Your task to perform on an android device: change the clock style Image 0: 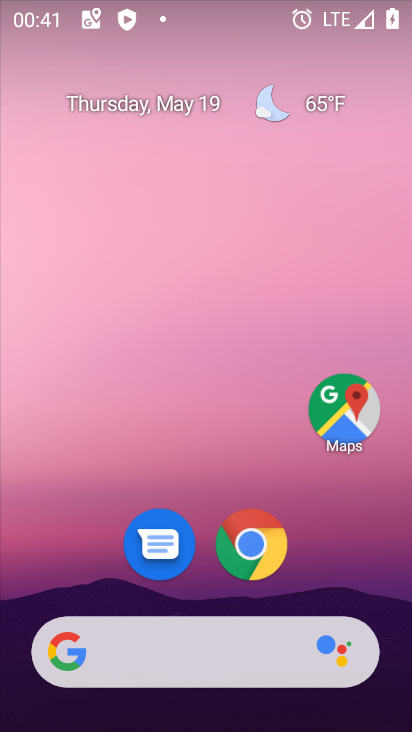
Step 0: drag from (384, 575) to (385, 177)
Your task to perform on an android device: change the clock style Image 1: 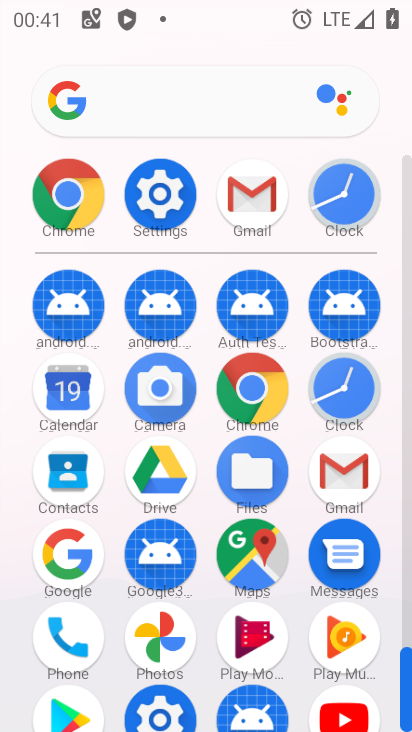
Step 1: click (361, 384)
Your task to perform on an android device: change the clock style Image 2: 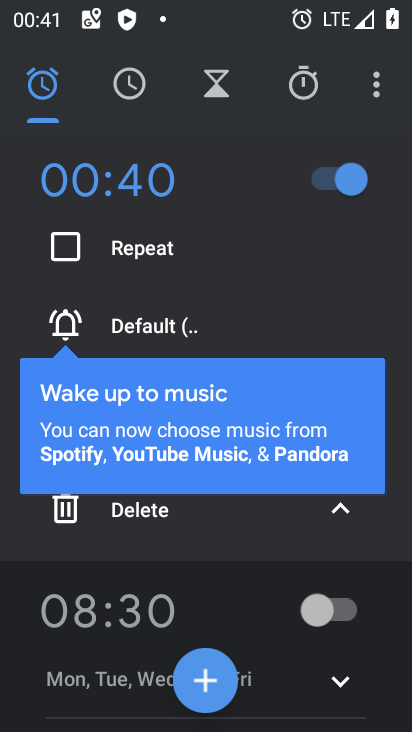
Step 2: click (377, 97)
Your task to perform on an android device: change the clock style Image 3: 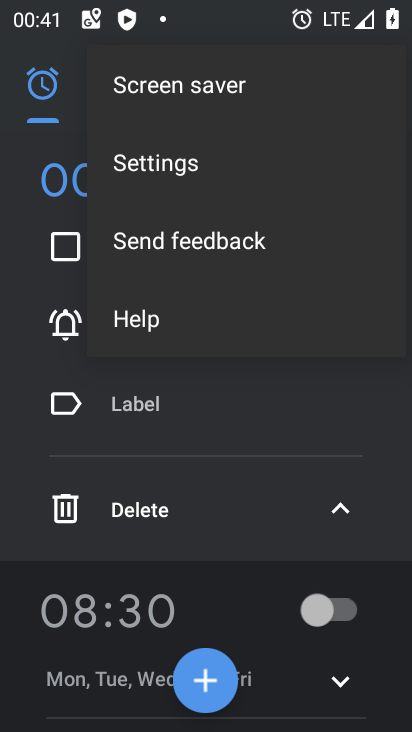
Step 3: click (229, 180)
Your task to perform on an android device: change the clock style Image 4: 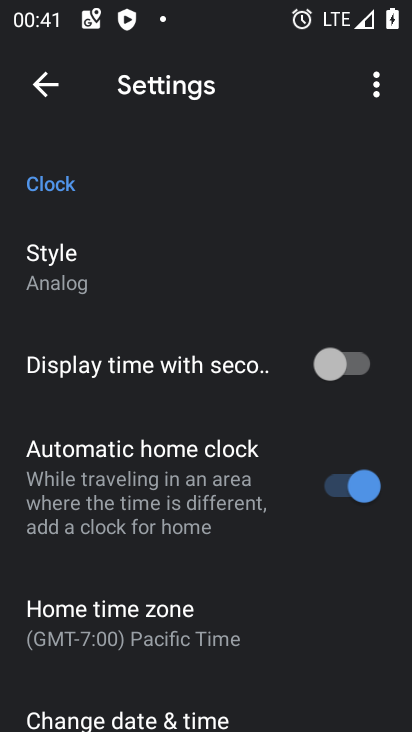
Step 4: drag from (294, 579) to (287, 479)
Your task to perform on an android device: change the clock style Image 5: 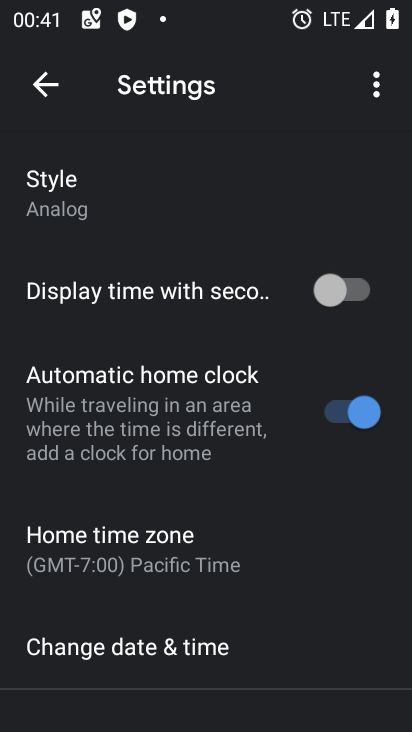
Step 5: drag from (286, 613) to (284, 513)
Your task to perform on an android device: change the clock style Image 6: 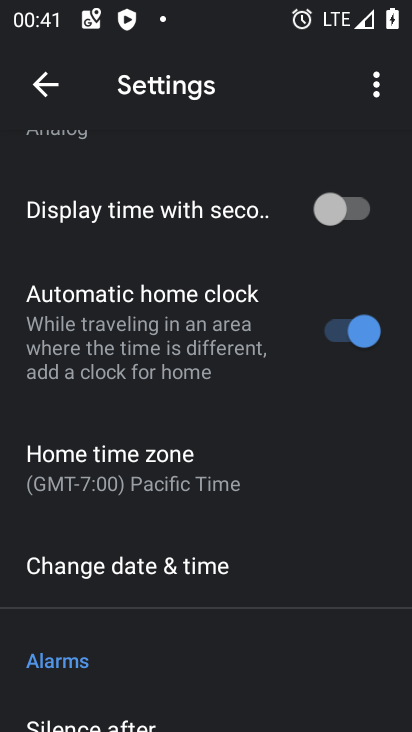
Step 6: drag from (283, 610) to (291, 440)
Your task to perform on an android device: change the clock style Image 7: 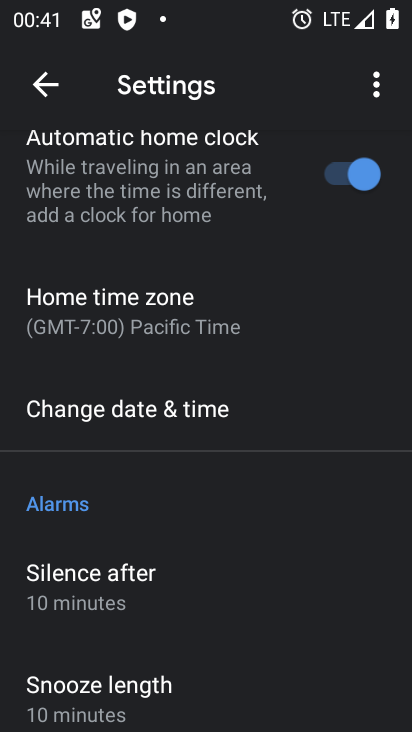
Step 7: drag from (292, 620) to (293, 472)
Your task to perform on an android device: change the clock style Image 8: 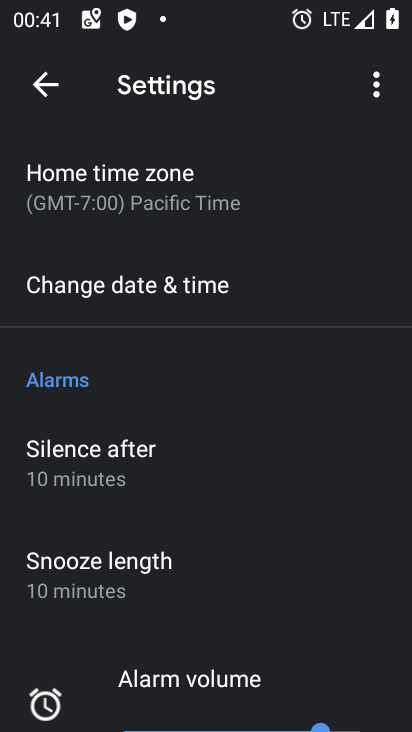
Step 8: drag from (295, 662) to (297, 518)
Your task to perform on an android device: change the clock style Image 9: 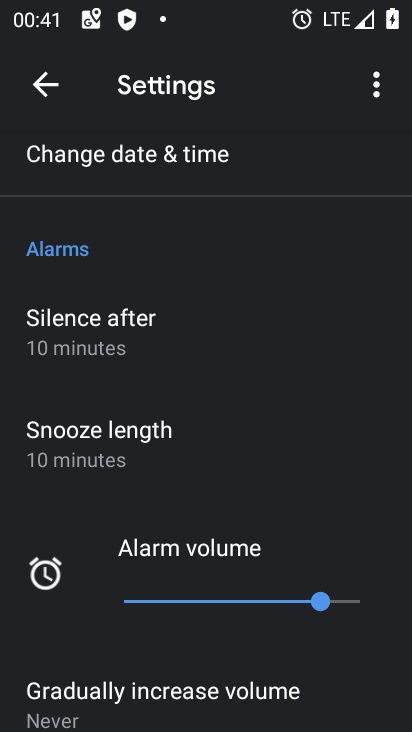
Step 9: drag from (291, 678) to (298, 537)
Your task to perform on an android device: change the clock style Image 10: 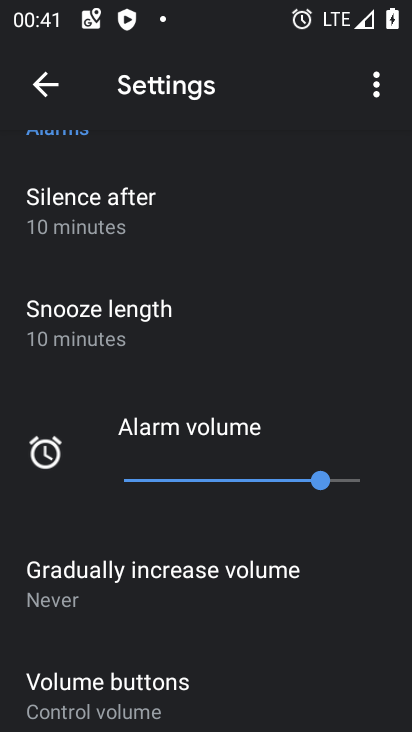
Step 10: drag from (283, 662) to (302, 537)
Your task to perform on an android device: change the clock style Image 11: 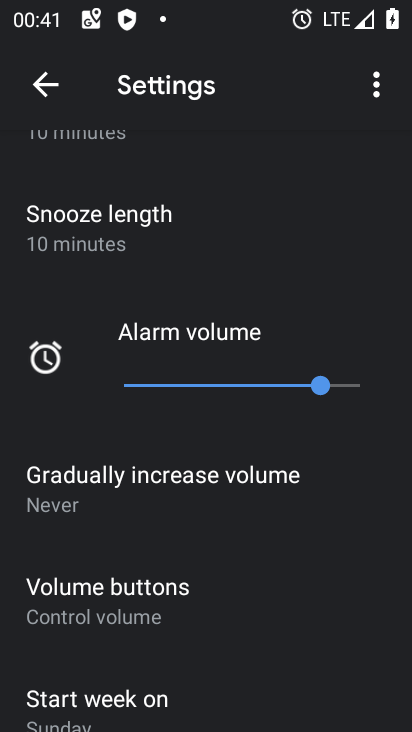
Step 11: drag from (301, 659) to (305, 487)
Your task to perform on an android device: change the clock style Image 12: 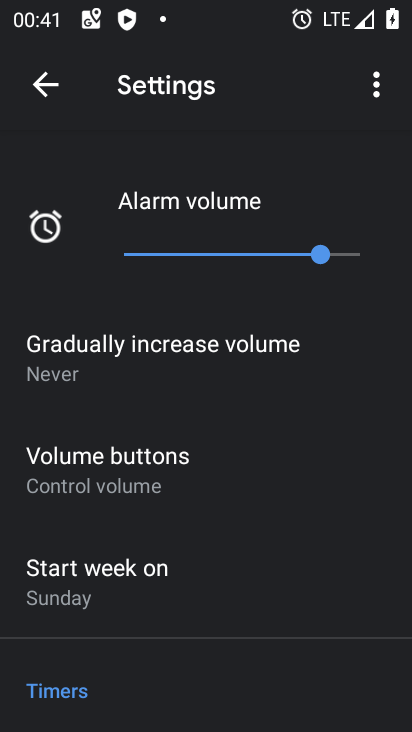
Step 12: drag from (281, 674) to (298, 515)
Your task to perform on an android device: change the clock style Image 13: 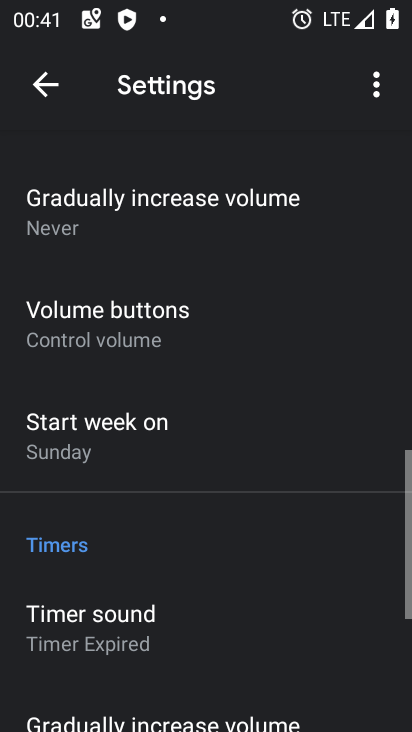
Step 13: drag from (281, 664) to (286, 491)
Your task to perform on an android device: change the clock style Image 14: 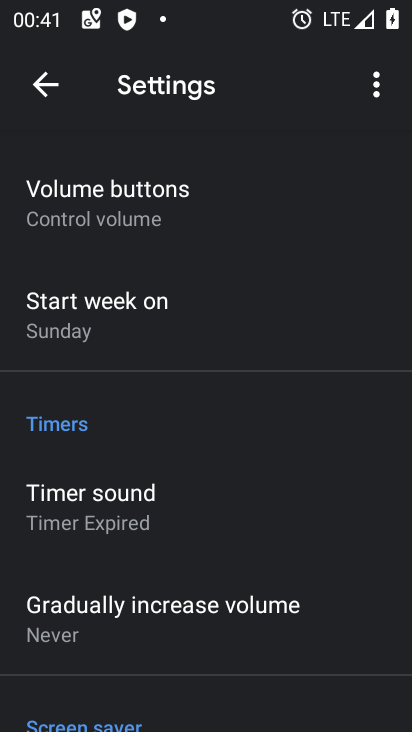
Step 14: drag from (326, 358) to (300, 567)
Your task to perform on an android device: change the clock style Image 15: 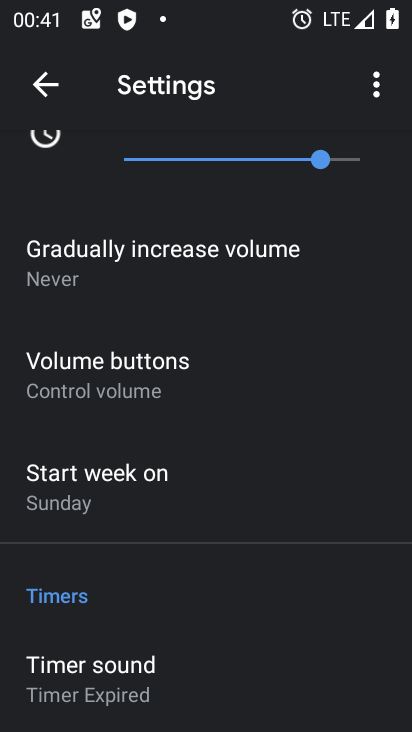
Step 15: drag from (306, 250) to (308, 434)
Your task to perform on an android device: change the clock style Image 16: 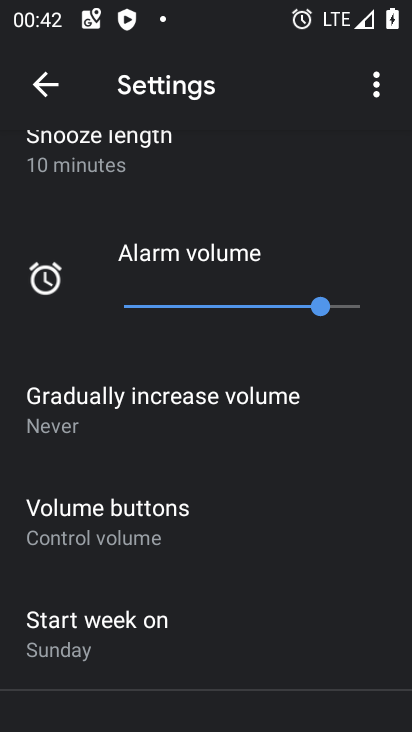
Step 16: drag from (275, 182) to (251, 399)
Your task to perform on an android device: change the clock style Image 17: 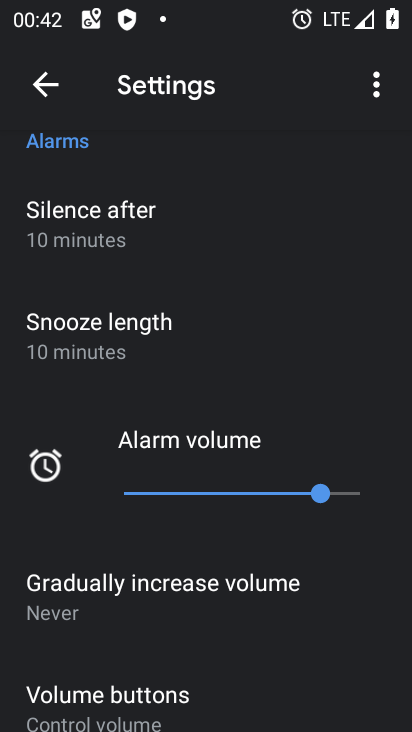
Step 17: drag from (248, 237) to (248, 374)
Your task to perform on an android device: change the clock style Image 18: 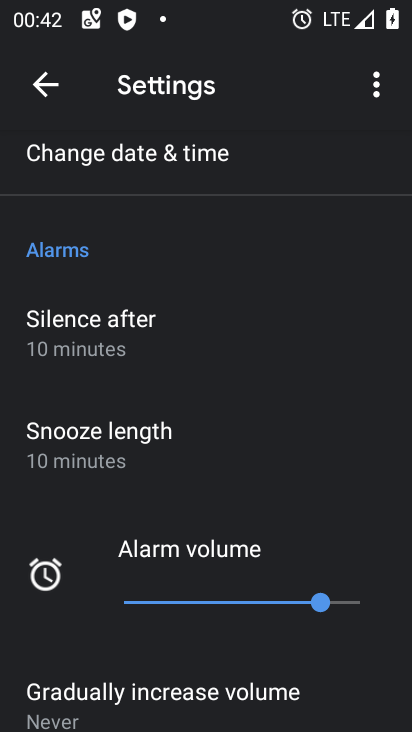
Step 18: drag from (269, 231) to (269, 449)
Your task to perform on an android device: change the clock style Image 19: 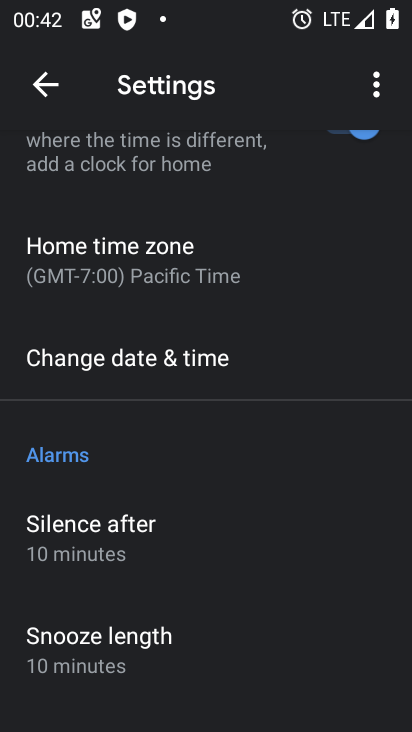
Step 19: drag from (279, 206) to (272, 397)
Your task to perform on an android device: change the clock style Image 20: 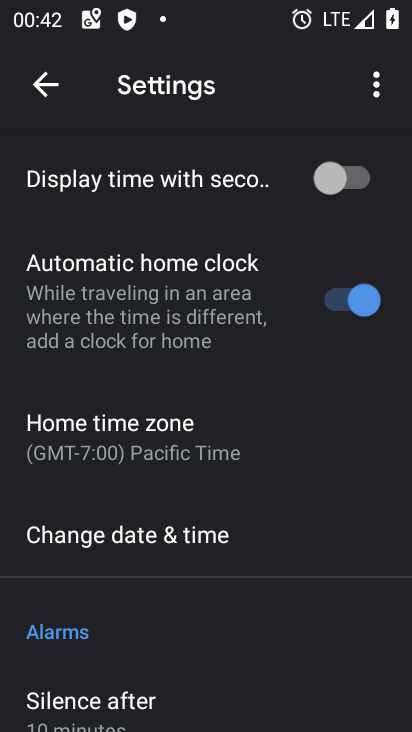
Step 20: drag from (282, 149) to (261, 353)
Your task to perform on an android device: change the clock style Image 21: 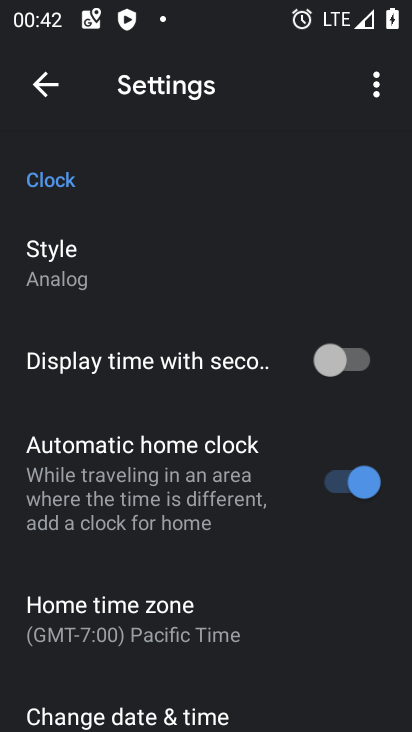
Step 21: drag from (236, 195) to (223, 329)
Your task to perform on an android device: change the clock style Image 22: 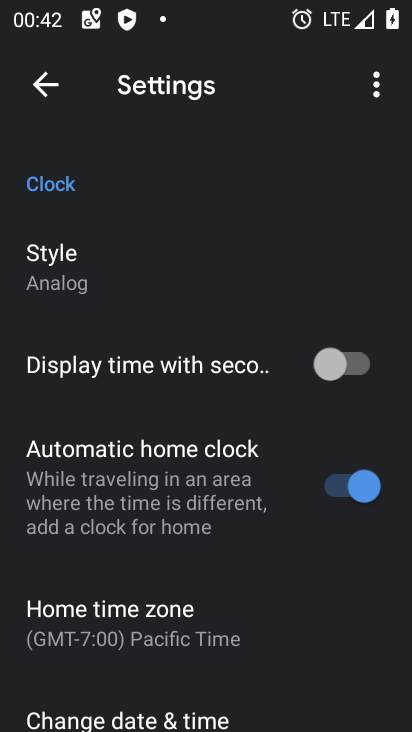
Step 22: click (85, 292)
Your task to perform on an android device: change the clock style Image 23: 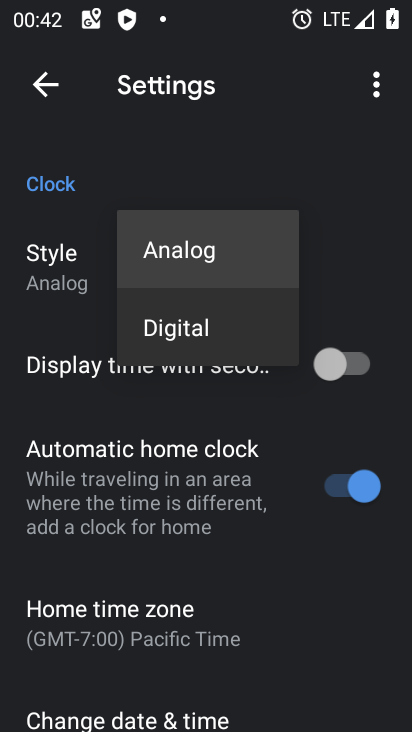
Step 23: click (193, 343)
Your task to perform on an android device: change the clock style Image 24: 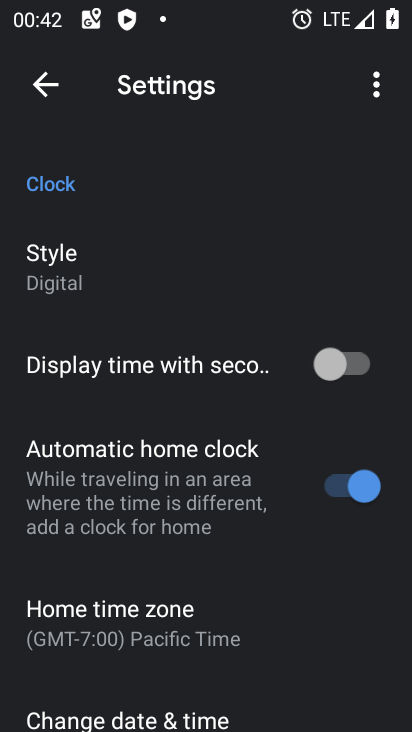
Step 24: task complete